Your task to perform on an android device: turn on javascript in the chrome app Image 0: 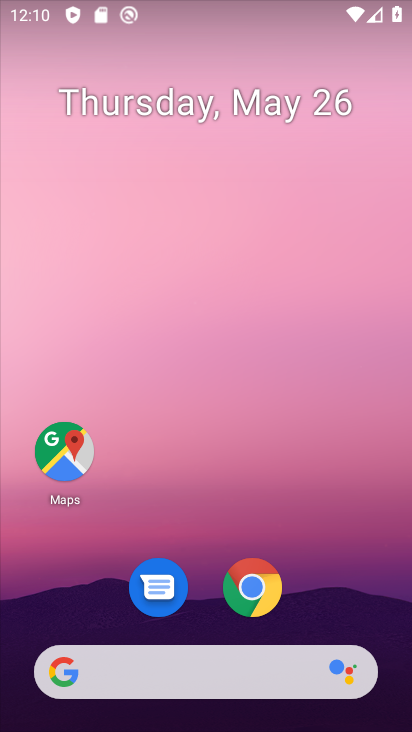
Step 0: drag from (355, 598) to (382, 196)
Your task to perform on an android device: turn on javascript in the chrome app Image 1: 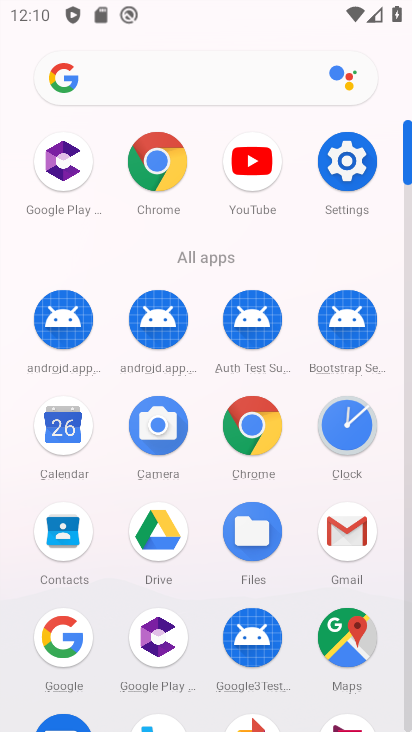
Step 1: click (265, 426)
Your task to perform on an android device: turn on javascript in the chrome app Image 2: 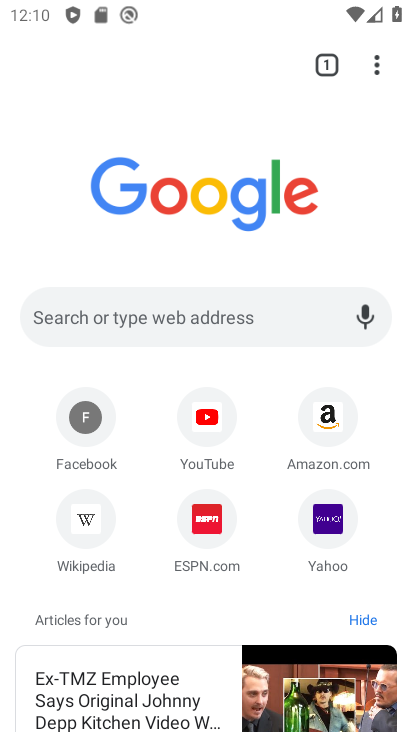
Step 2: click (373, 70)
Your task to perform on an android device: turn on javascript in the chrome app Image 3: 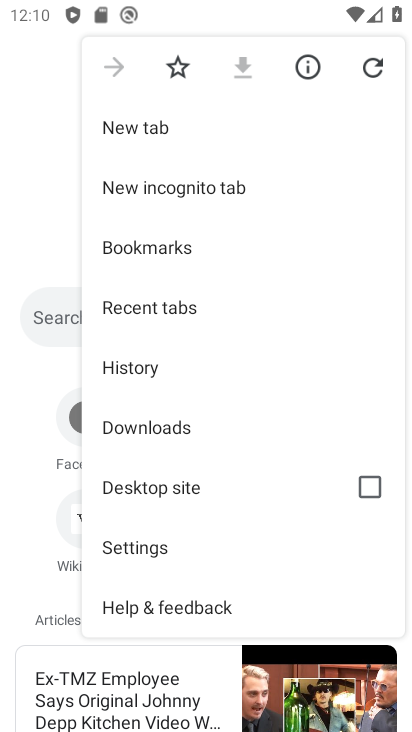
Step 3: click (182, 548)
Your task to perform on an android device: turn on javascript in the chrome app Image 4: 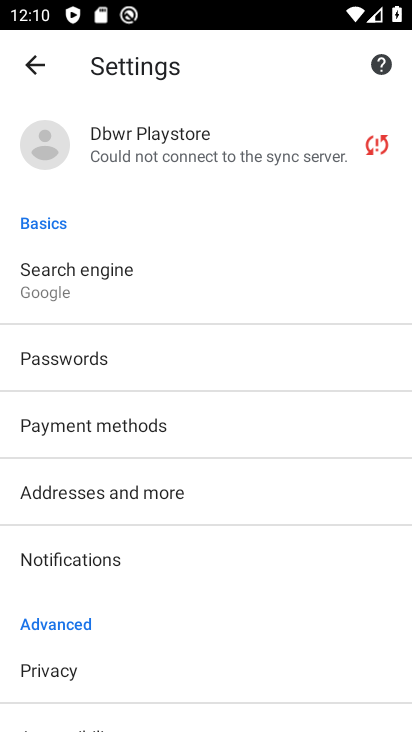
Step 4: drag from (340, 569) to (341, 486)
Your task to perform on an android device: turn on javascript in the chrome app Image 5: 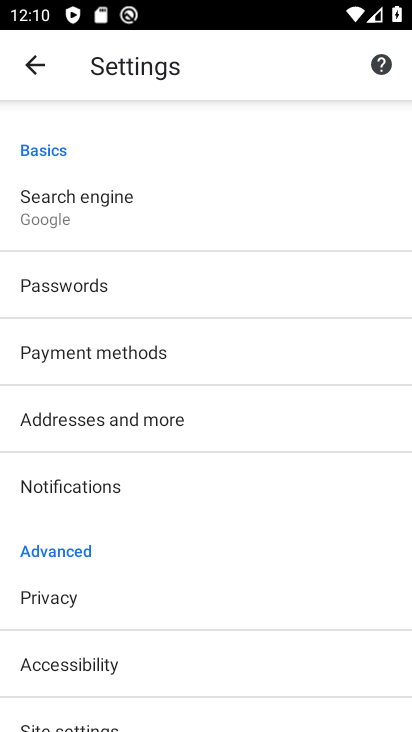
Step 5: drag from (366, 618) to (362, 514)
Your task to perform on an android device: turn on javascript in the chrome app Image 6: 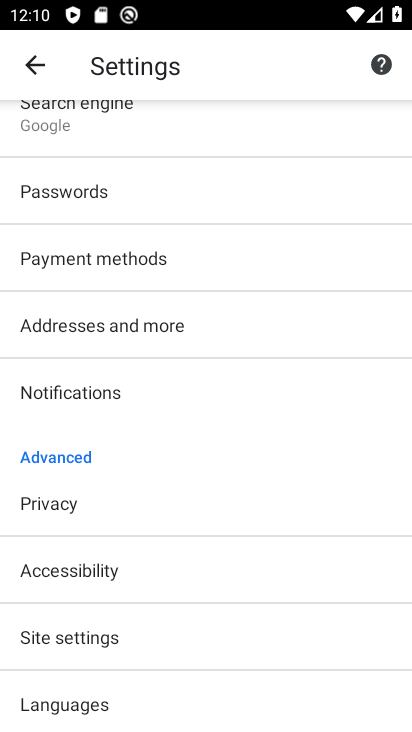
Step 6: drag from (345, 601) to (351, 507)
Your task to perform on an android device: turn on javascript in the chrome app Image 7: 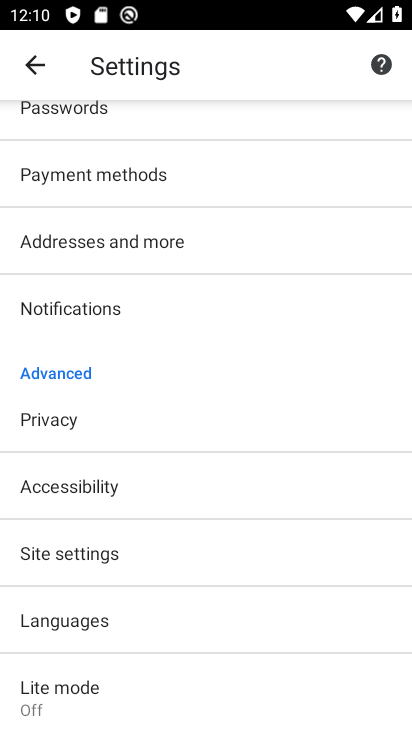
Step 7: drag from (339, 665) to (358, 576)
Your task to perform on an android device: turn on javascript in the chrome app Image 8: 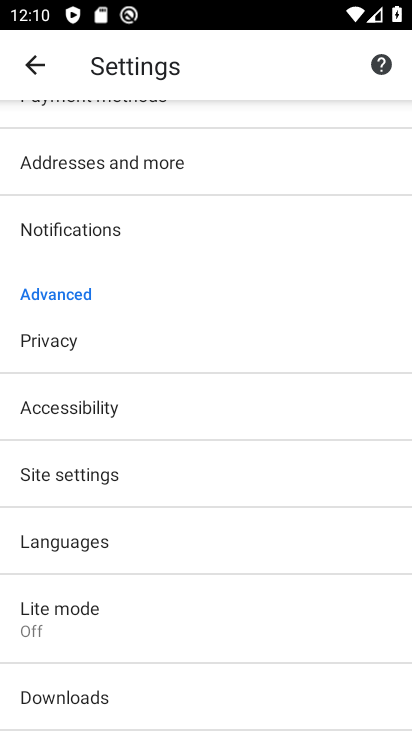
Step 8: drag from (352, 646) to (361, 545)
Your task to perform on an android device: turn on javascript in the chrome app Image 9: 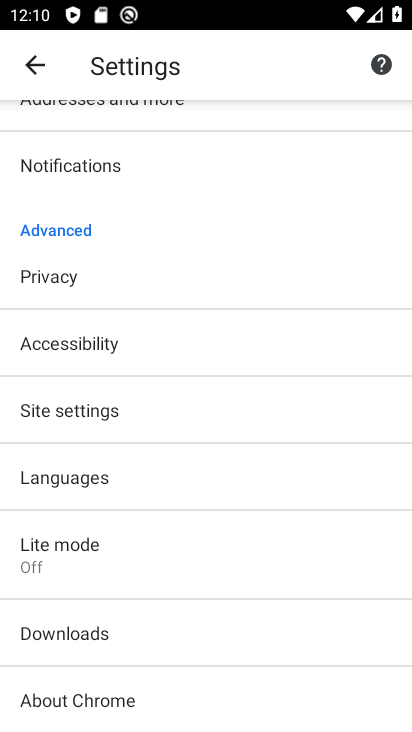
Step 9: drag from (346, 624) to (343, 528)
Your task to perform on an android device: turn on javascript in the chrome app Image 10: 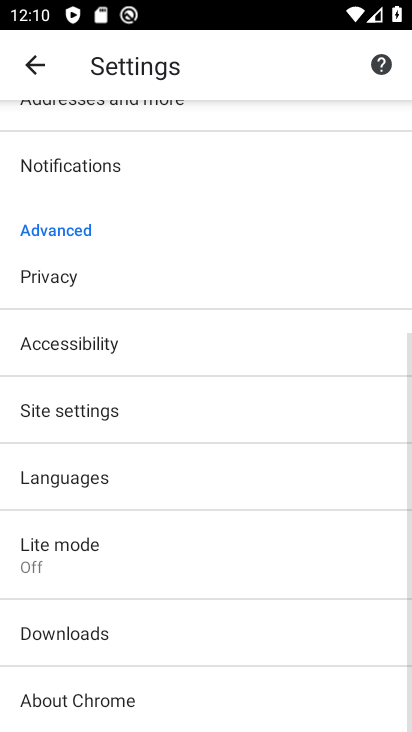
Step 10: click (327, 410)
Your task to perform on an android device: turn on javascript in the chrome app Image 11: 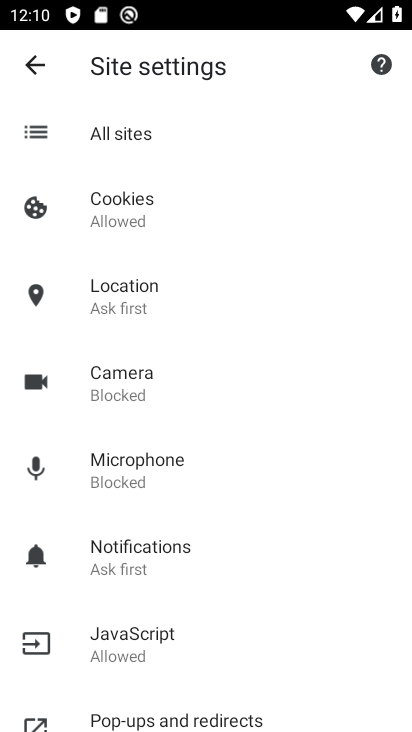
Step 11: drag from (307, 499) to (315, 405)
Your task to perform on an android device: turn on javascript in the chrome app Image 12: 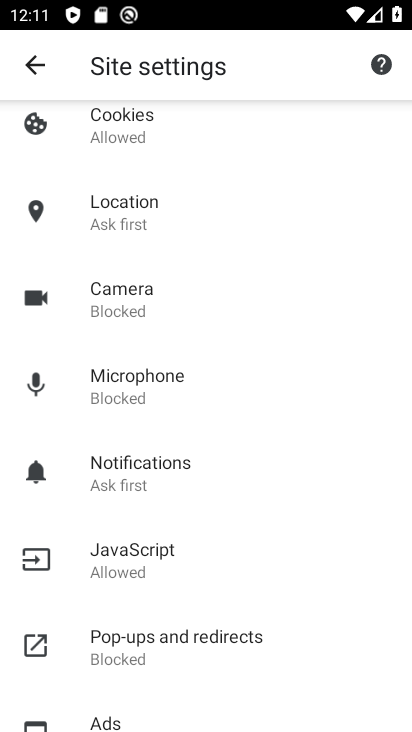
Step 12: drag from (318, 548) to (333, 466)
Your task to perform on an android device: turn on javascript in the chrome app Image 13: 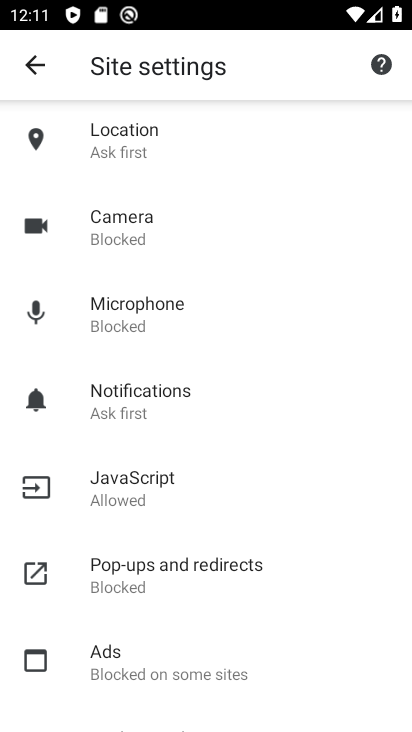
Step 13: drag from (342, 564) to (351, 473)
Your task to perform on an android device: turn on javascript in the chrome app Image 14: 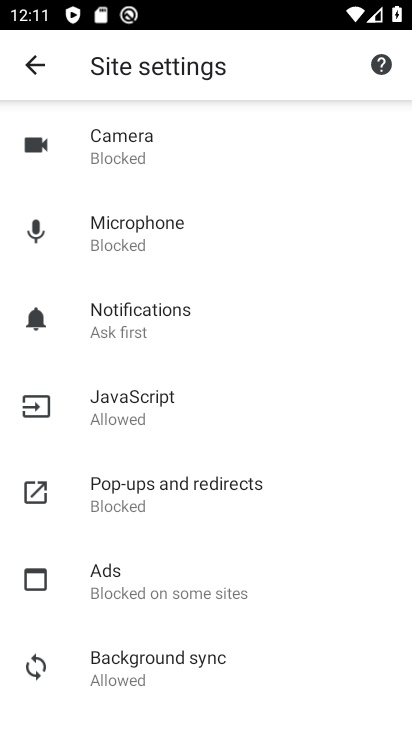
Step 14: drag from (340, 573) to (351, 506)
Your task to perform on an android device: turn on javascript in the chrome app Image 15: 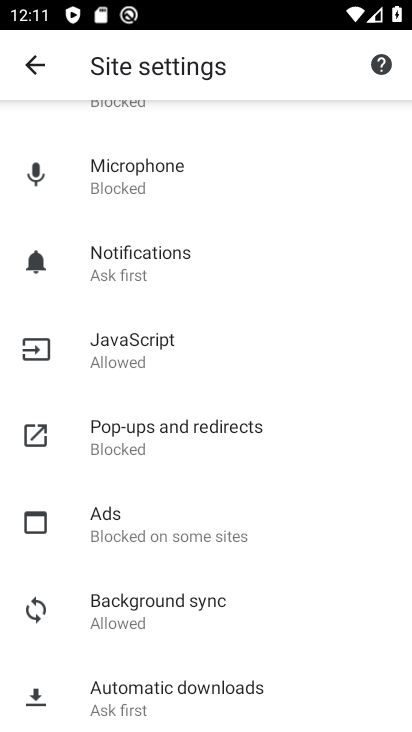
Step 15: drag from (337, 559) to (350, 492)
Your task to perform on an android device: turn on javascript in the chrome app Image 16: 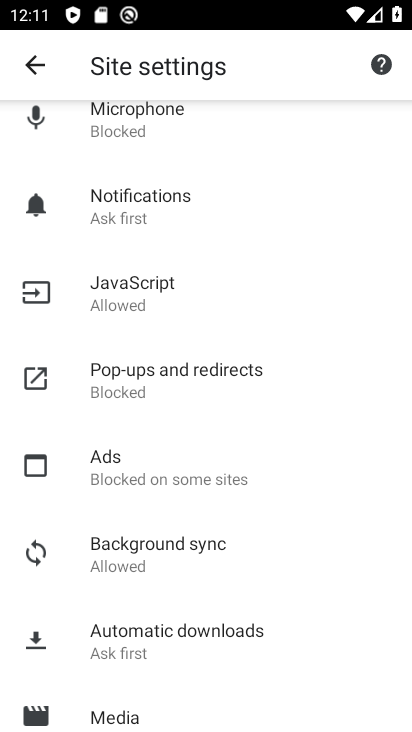
Step 16: drag from (348, 545) to (361, 468)
Your task to perform on an android device: turn on javascript in the chrome app Image 17: 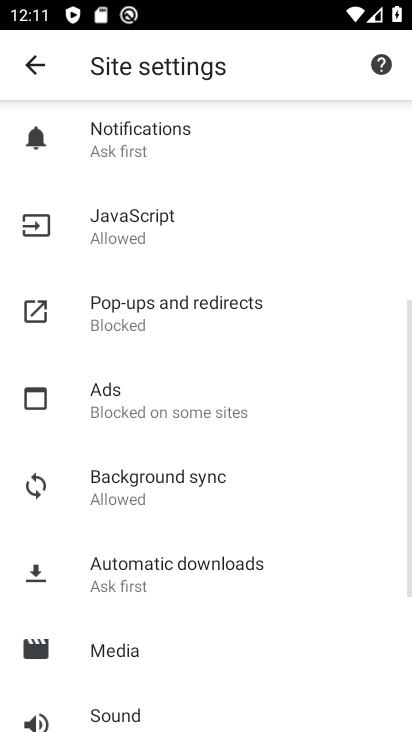
Step 17: drag from (340, 543) to (348, 478)
Your task to perform on an android device: turn on javascript in the chrome app Image 18: 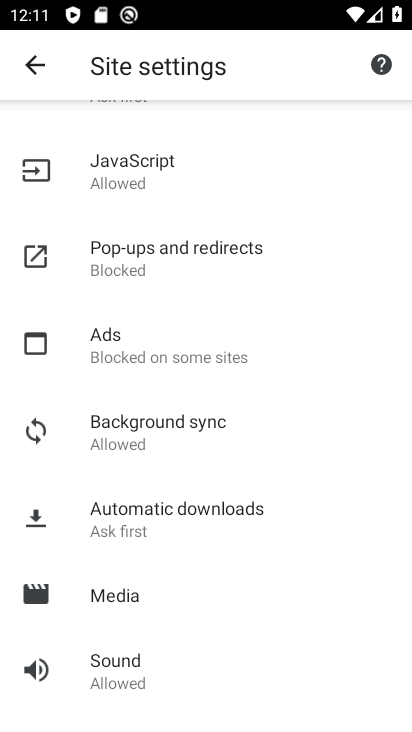
Step 18: drag from (329, 568) to (335, 477)
Your task to perform on an android device: turn on javascript in the chrome app Image 19: 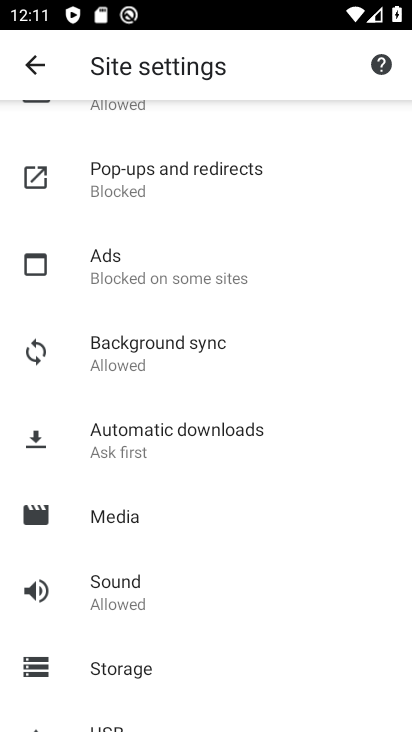
Step 19: drag from (319, 575) to (327, 508)
Your task to perform on an android device: turn on javascript in the chrome app Image 20: 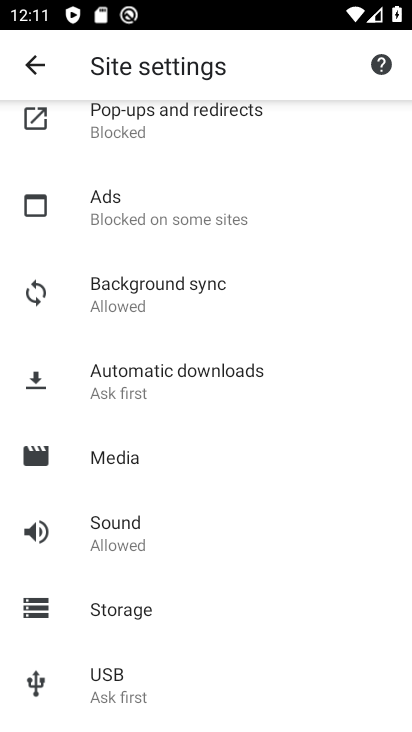
Step 20: drag from (320, 588) to (328, 510)
Your task to perform on an android device: turn on javascript in the chrome app Image 21: 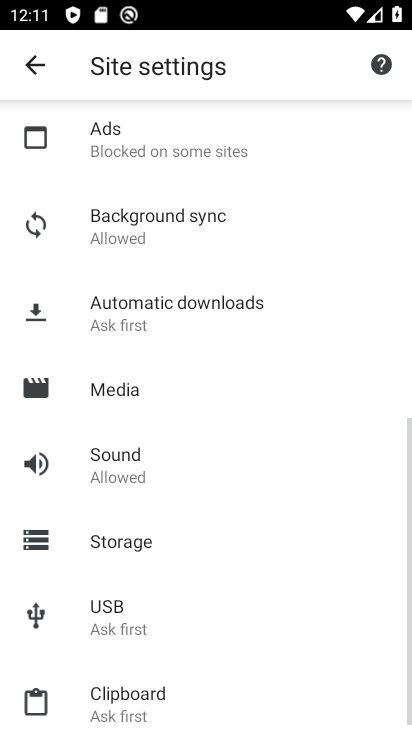
Step 21: drag from (317, 585) to (329, 495)
Your task to perform on an android device: turn on javascript in the chrome app Image 22: 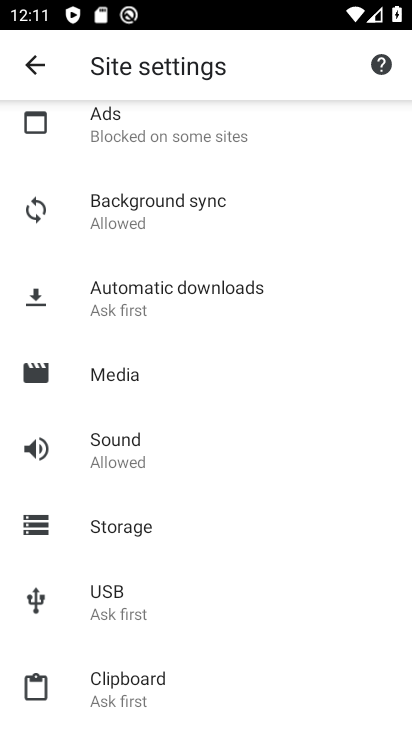
Step 22: drag from (346, 264) to (347, 359)
Your task to perform on an android device: turn on javascript in the chrome app Image 23: 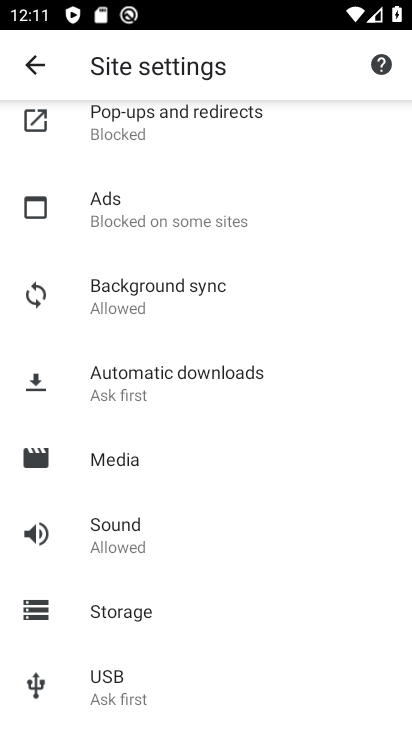
Step 23: drag from (340, 279) to (338, 375)
Your task to perform on an android device: turn on javascript in the chrome app Image 24: 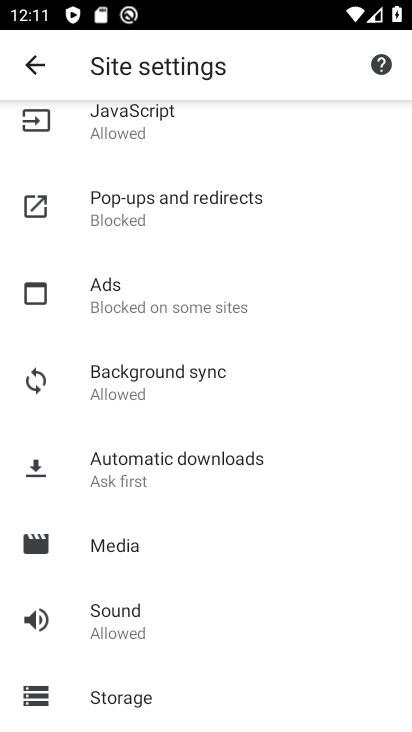
Step 24: drag from (344, 282) to (342, 387)
Your task to perform on an android device: turn on javascript in the chrome app Image 25: 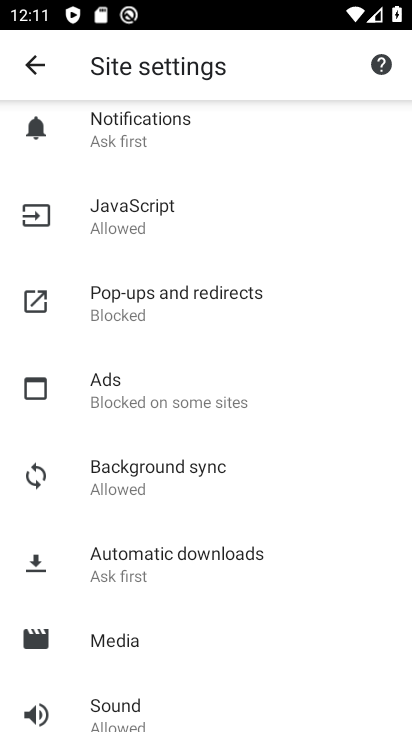
Step 25: drag from (328, 287) to (323, 377)
Your task to perform on an android device: turn on javascript in the chrome app Image 26: 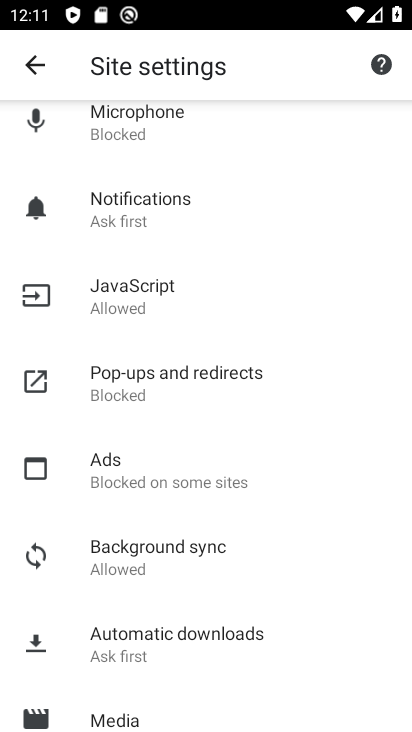
Step 26: drag from (310, 306) to (312, 436)
Your task to perform on an android device: turn on javascript in the chrome app Image 27: 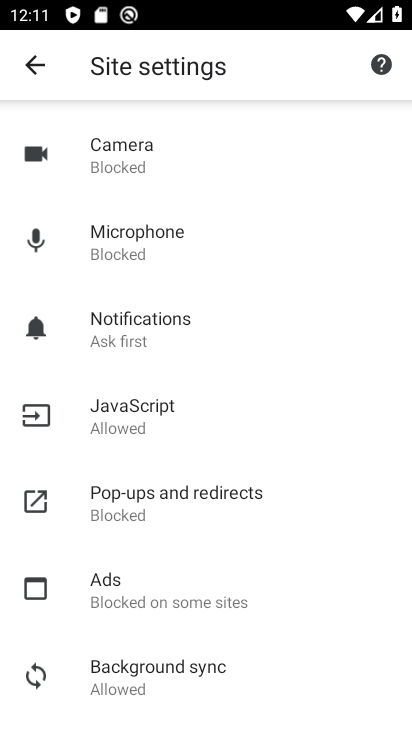
Step 27: click (146, 433)
Your task to perform on an android device: turn on javascript in the chrome app Image 28: 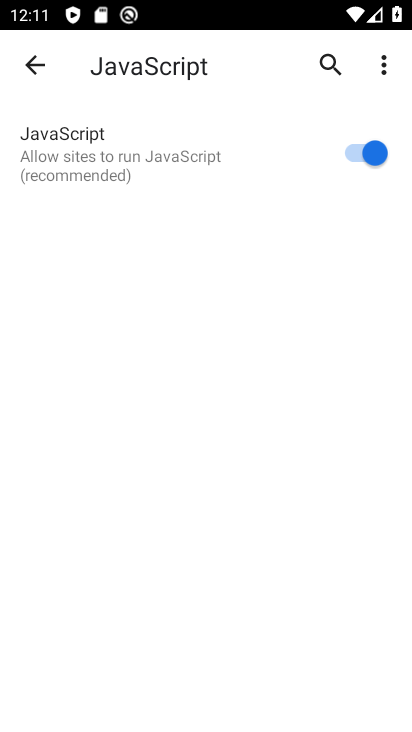
Step 28: task complete